Your task to perform on an android device: Is it going to rain this weekend? Image 0: 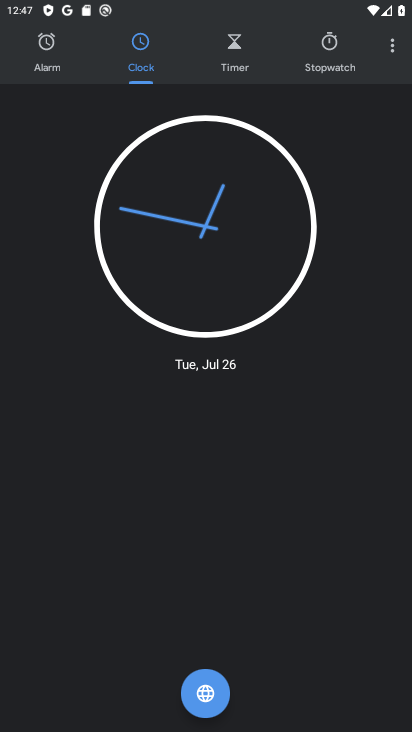
Step 0: press home button
Your task to perform on an android device: Is it going to rain this weekend? Image 1: 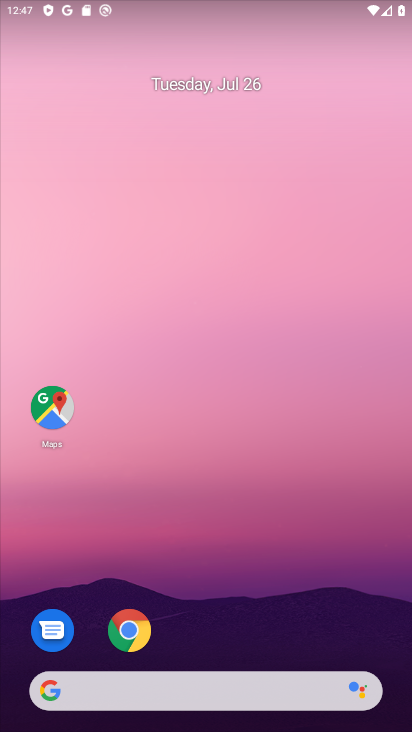
Step 1: drag from (190, 554) to (190, 19)
Your task to perform on an android device: Is it going to rain this weekend? Image 2: 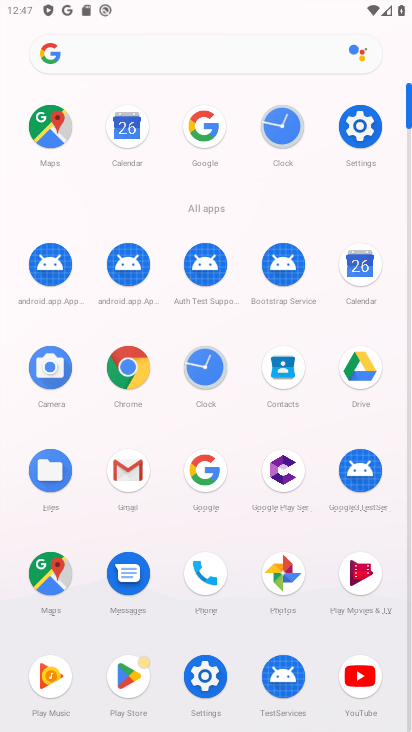
Step 2: click (207, 503)
Your task to perform on an android device: Is it going to rain this weekend? Image 3: 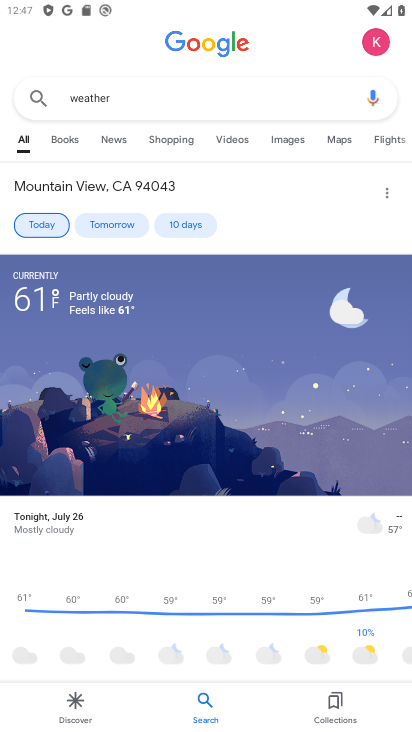
Step 3: click (193, 228)
Your task to perform on an android device: Is it going to rain this weekend? Image 4: 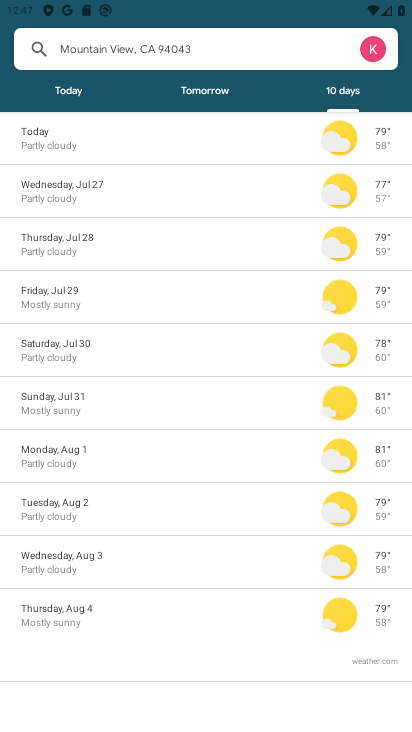
Step 4: task complete